Your task to perform on an android device: empty trash in google photos Image 0: 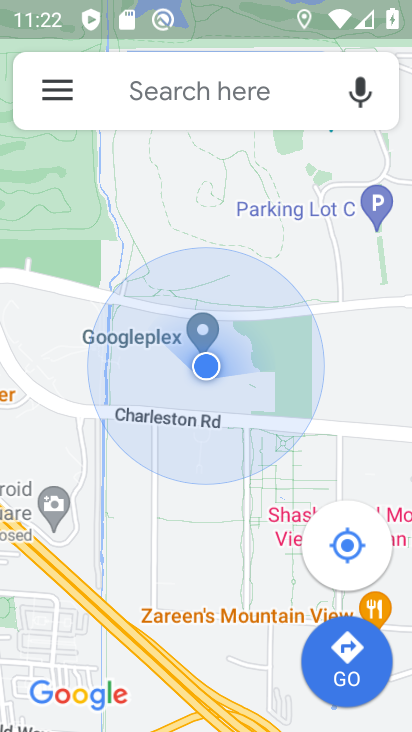
Step 0: press home button
Your task to perform on an android device: empty trash in google photos Image 1: 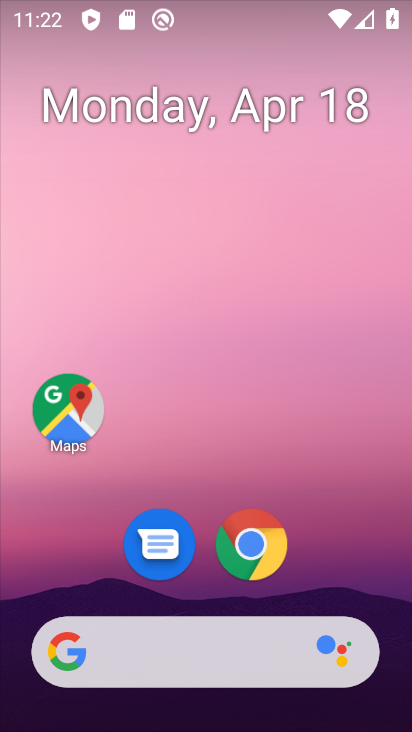
Step 1: drag from (354, 571) to (360, 112)
Your task to perform on an android device: empty trash in google photos Image 2: 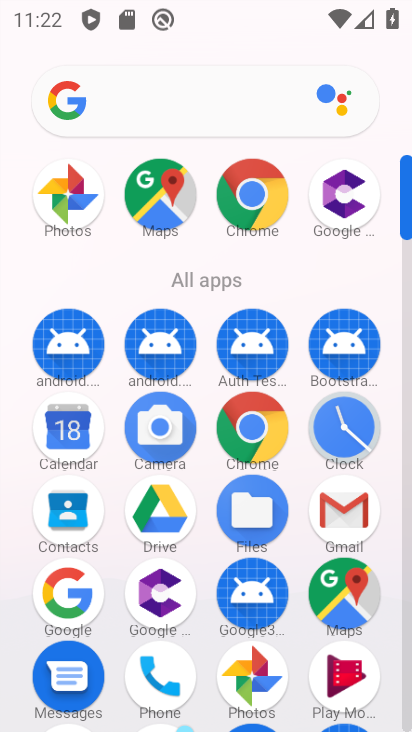
Step 2: click (72, 201)
Your task to perform on an android device: empty trash in google photos Image 3: 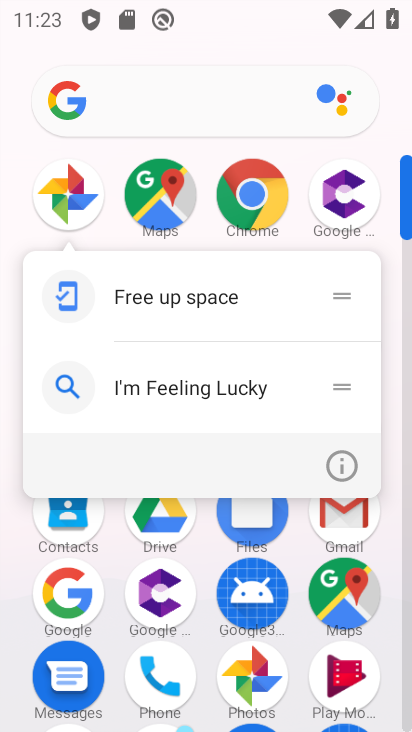
Step 3: click (65, 195)
Your task to perform on an android device: empty trash in google photos Image 4: 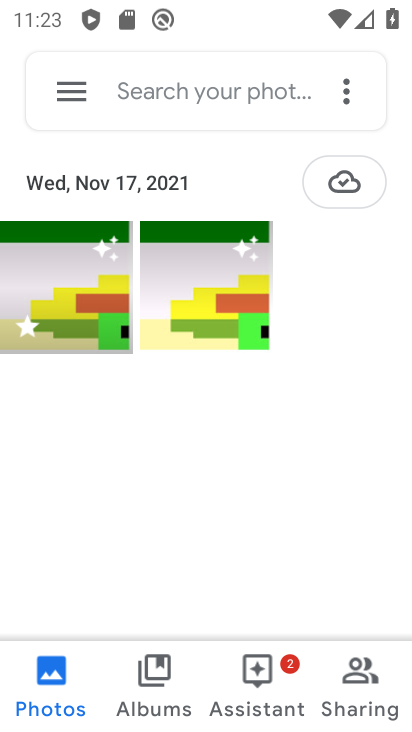
Step 4: click (64, 89)
Your task to perform on an android device: empty trash in google photos Image 5: 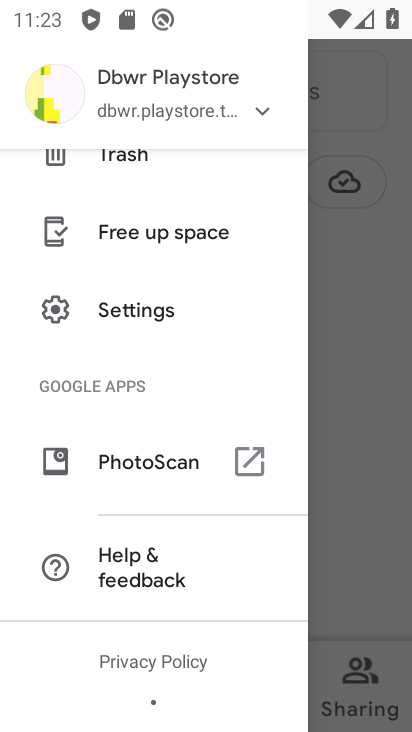
Step 5: click (126, 156)
Your task to perform on an android device: empty trash in google photos Image 6: 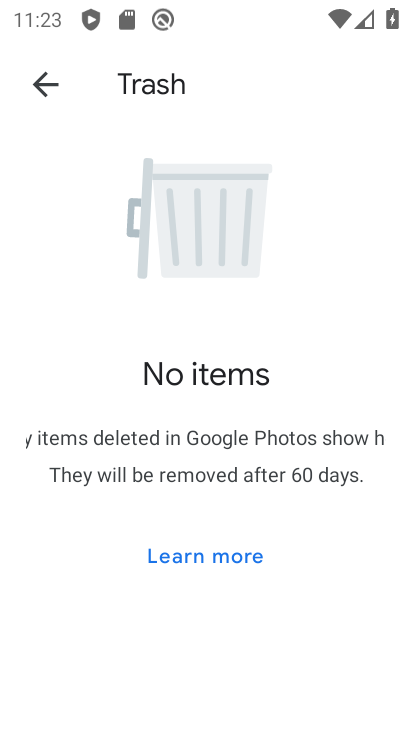
Step 6: task complete